Your task to perform on an android device: toggle translation in the chrome app Image 0: 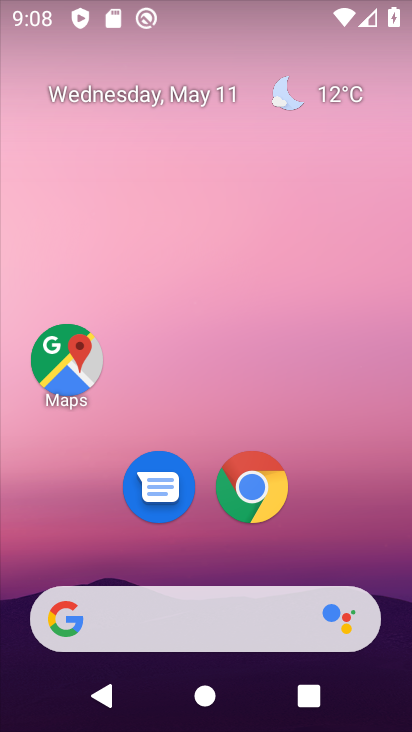
Step 0: click (253, 486)
Your task to perform on an android device: toggle translation in the chrome app Image 1: 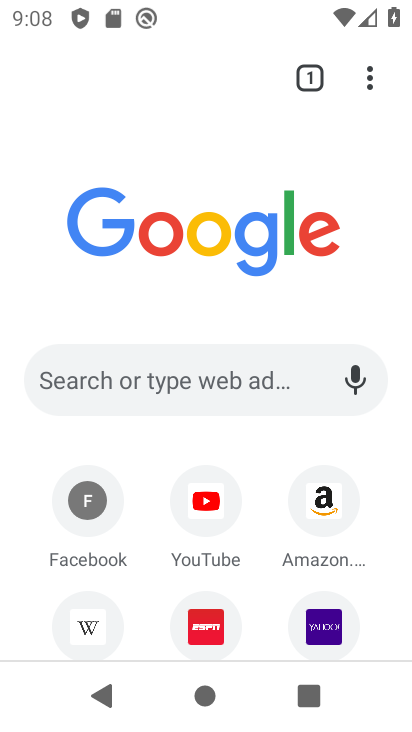
Step 1: click (371, 78)
Your task to perform on an android device: toggle translation in the chrome app Image 2: 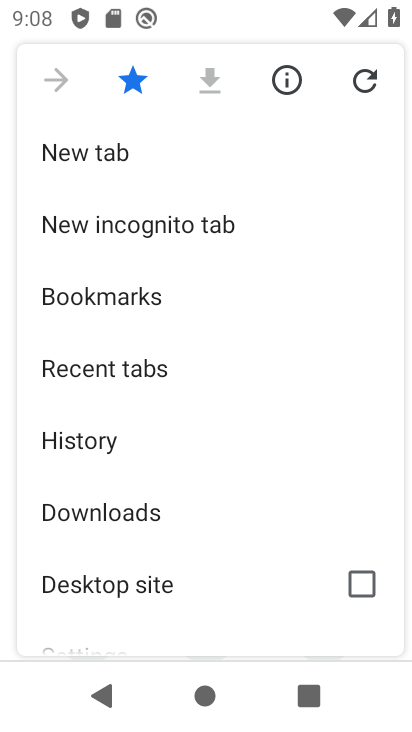
Step 2: drag from (136, 481) to (251, 309)
Your task to perform on an android device: toggle translation in the chrome app Image 3: 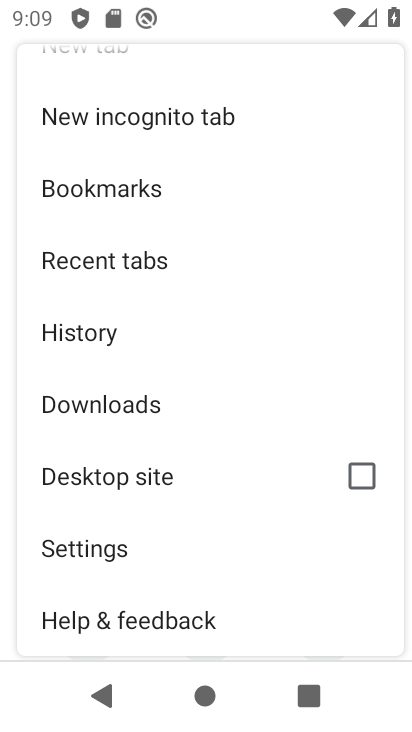
Step 3: click (98, 545)
Your task to perform on an android device: toggle translation in the chrome app Image 4: 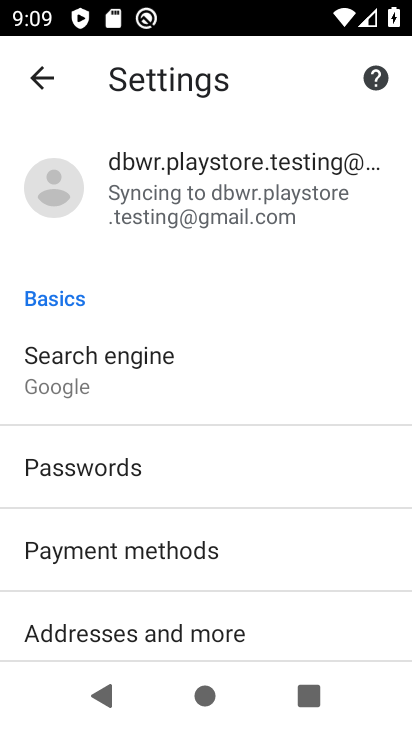
Step 4: drag from (156, 526) to (246, 392)
Your task to perform on an android device: toggle translation in the chrome app Image 5: 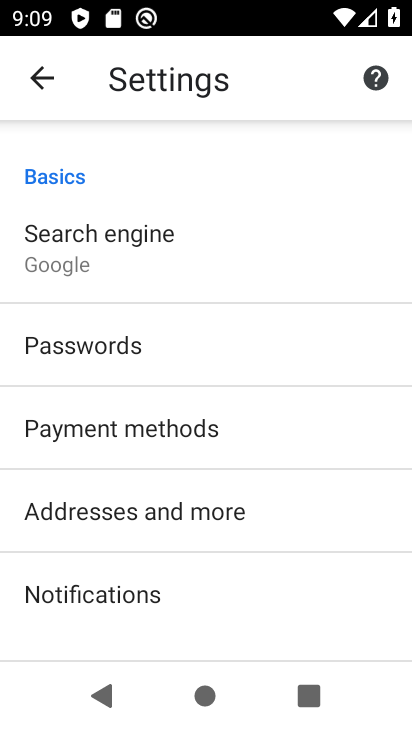
Step 5: drag from (174, 588) to (256, 405)
Your task to perform on an android device: toggle translation in the chrome app Image 6: 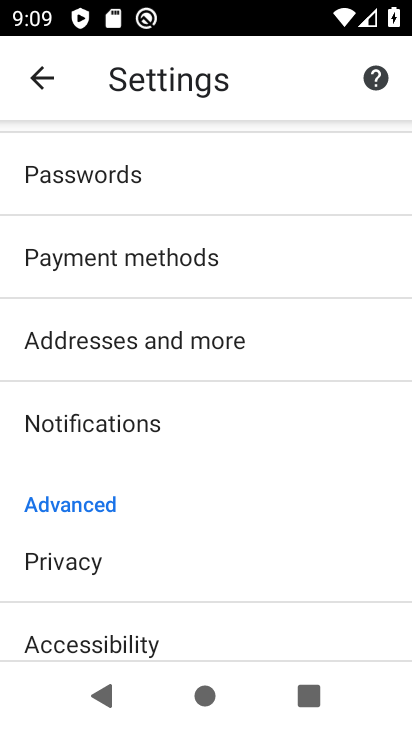
Step 6: drag from (187, 569) to (264, 447)
Your task to perform on an android device: toggle translation in the chrome app Image 7: 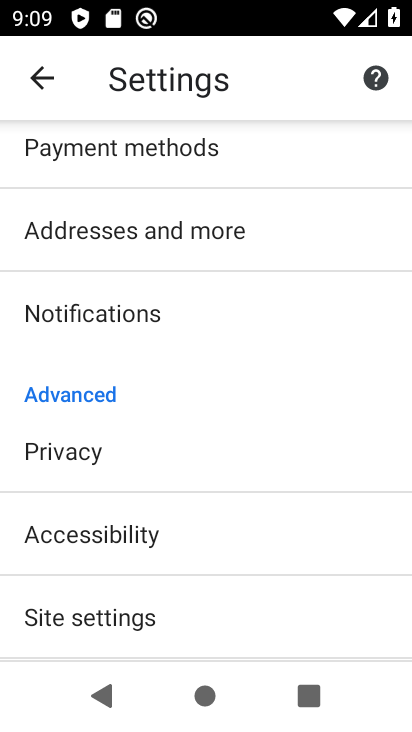
Step 7: drag from (200, 546) to (266, 451)
Your task to perform on an android device: toggle translation in the chrome app Image 8: 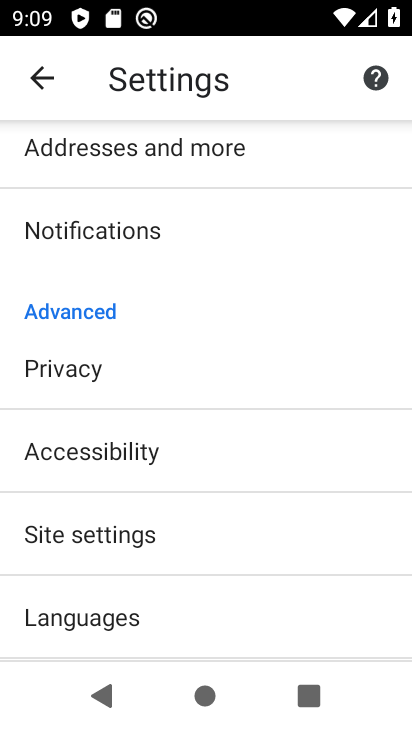
Step 8: drag from (169, 565) to (220, 458)
Your task to perform on an android device: toggle translation in the chrome app Image 9: 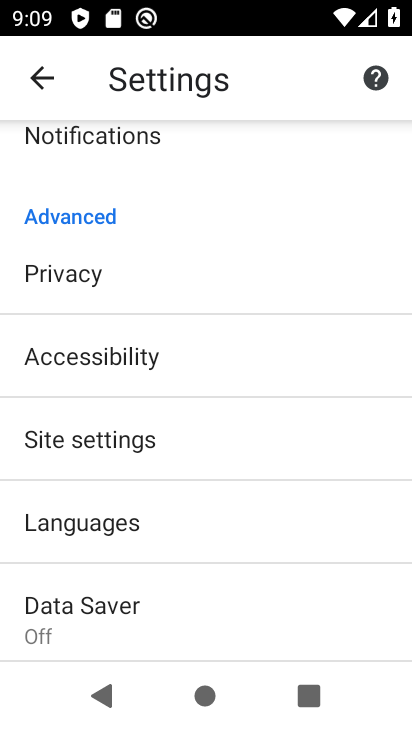
Step 9: click (122, 524)
Your task to perform on an android device: toggle translation in the chrome app Image 10: 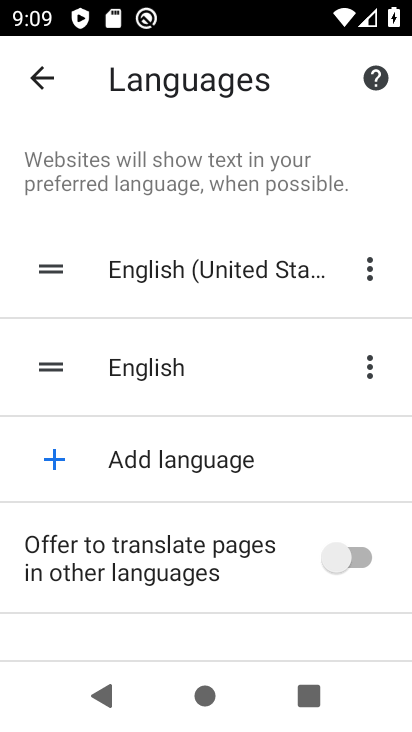
Step 10: click (361, 553)
Your task to perform on an android device: toggle translation in the chrome app Image 11: 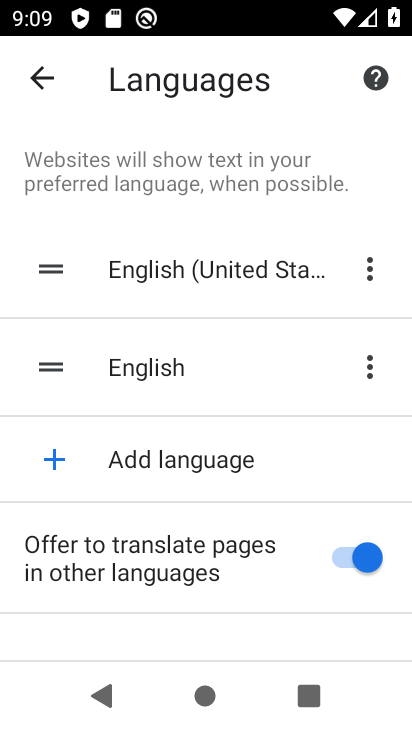
Step 11: task complete